Your task to perform on an android device: turn off data saver in the chrome app Image 0: 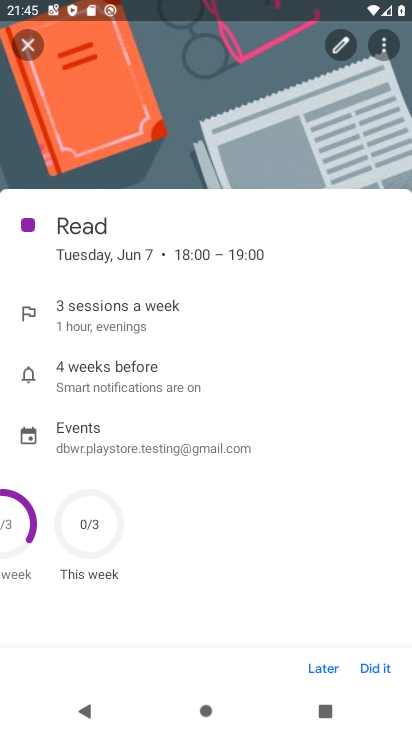
Step 0: press home button
Your task to perform on an android device: turn off data saver in the chrome app Image 1: 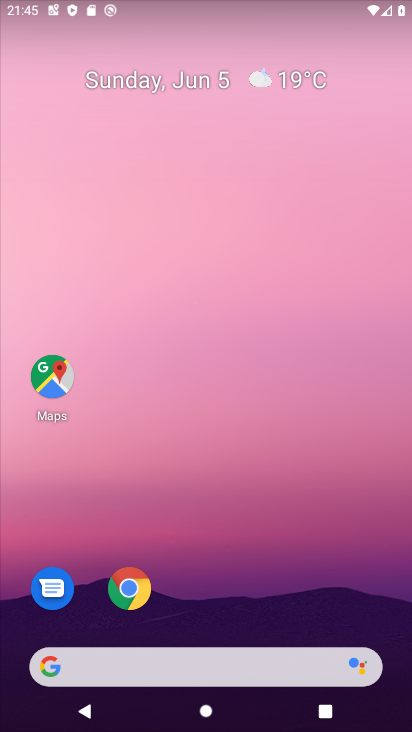
Step 1: drag from (377, 605) to (380, 205)
Your task to perform on an android device: turn off data saver in the chrome app Image 2: 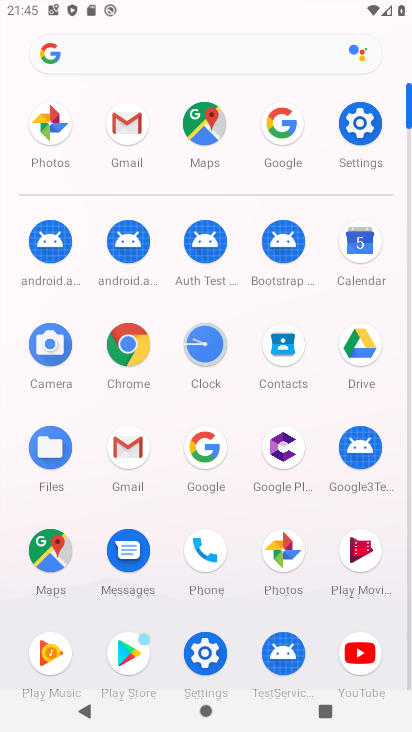
Step 2: click (136, 343)
Your task to perform on an android device: turn off data saver in the chrome app Image 3: 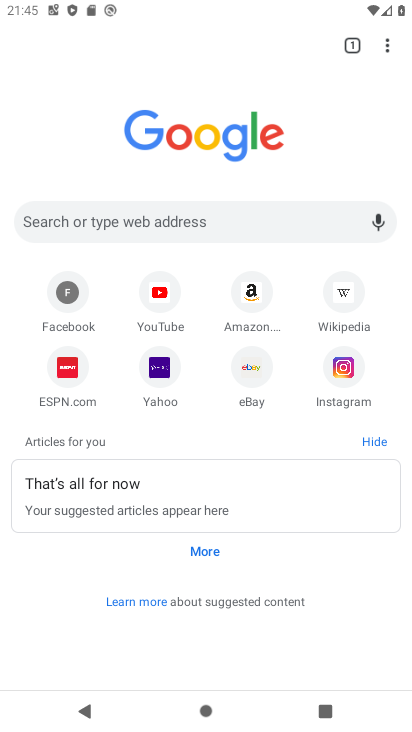
Step 3: click (386, 48)
Your task to perform on an android device: turn off data saver in the chrome app Image 4: 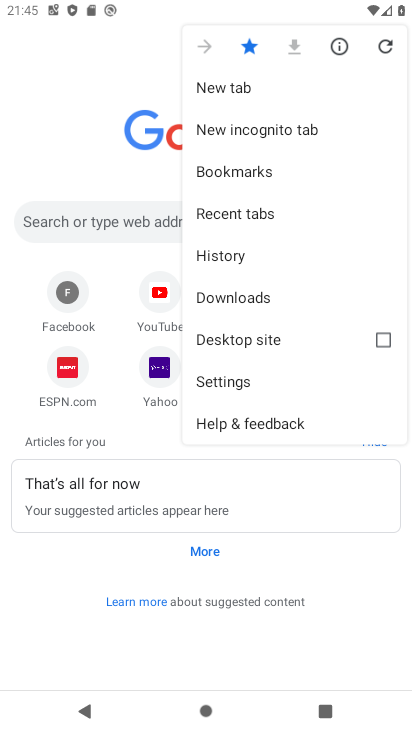
Step 4: click (252, 387)
Your task to perform on an android device: turn off data saver in the chrome app Image 5: 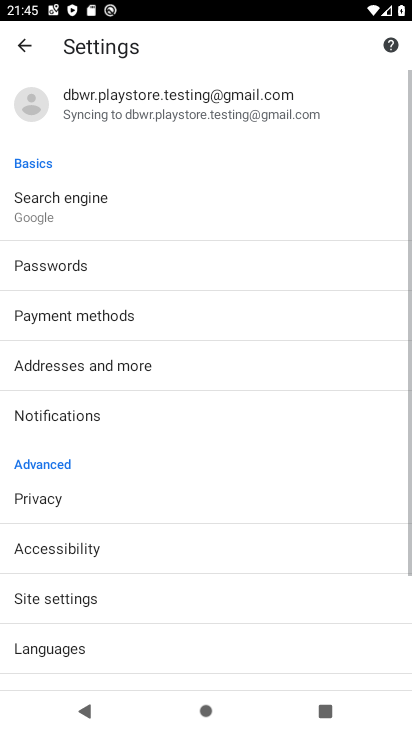
Step 5: drag from (281, 463) to (293, 375)
Your task to perform on an android device: turn off data saver in the chrome app Image 6: 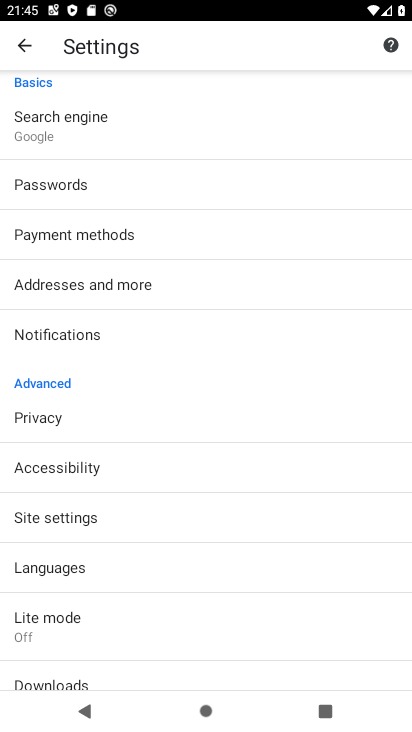
Step 6: drag from (319, 532) to (317, 436)
Your task to perform on an android device: turn off data saver in the chrome app Image 7: 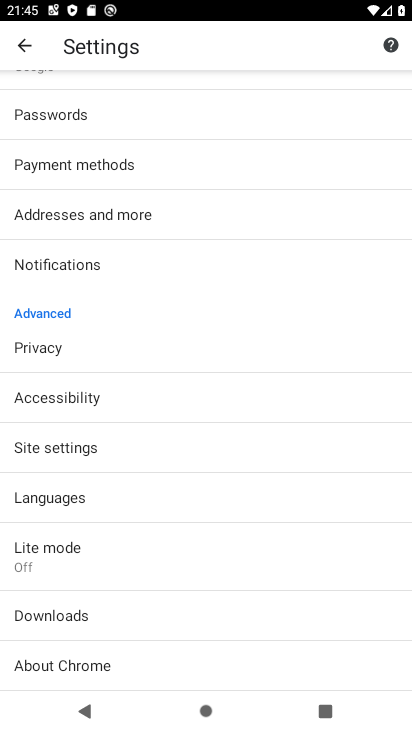
Step 7: drag from (306, 531) to (315, 388)
Your task to perform on an android device: turn off data saver in the chrome app Image 8: 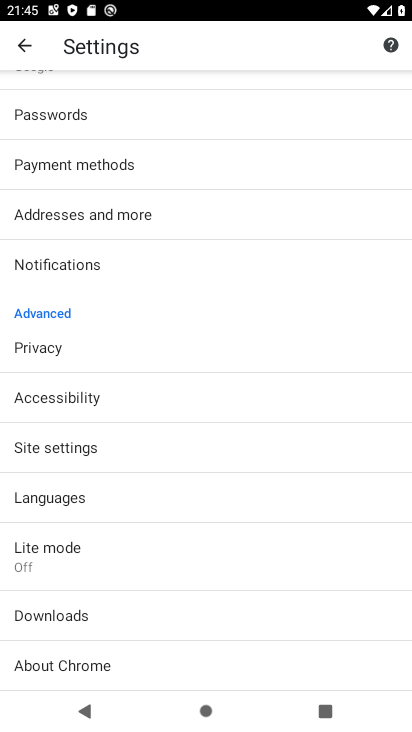
Step 8: click (259, 570)
Your task to perform on an android device: turn off data saver in the chrome app Image 9: 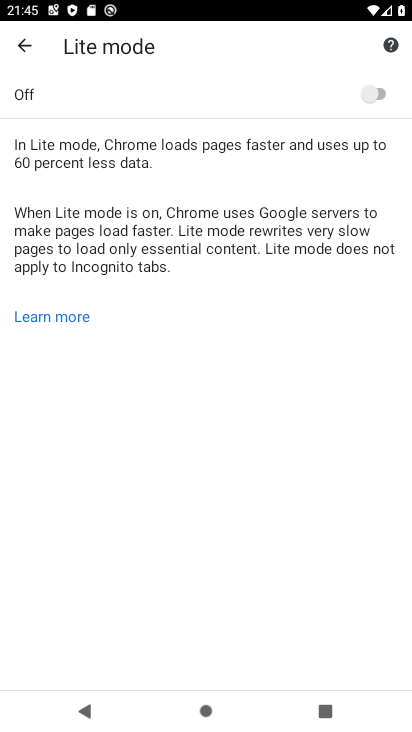
Step 9: task complete